Your task to perform on an android device: Go to calendar. Show me events next week Image 0: 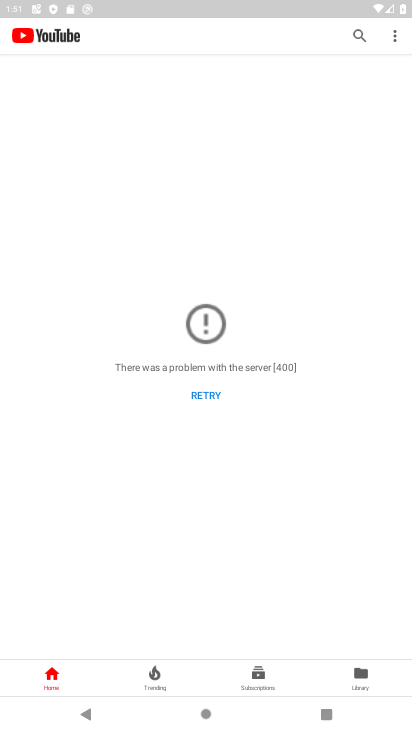
Step 0: press home button
Your task to perform on an android device: Go to calendar. Show me events next week Image 1: 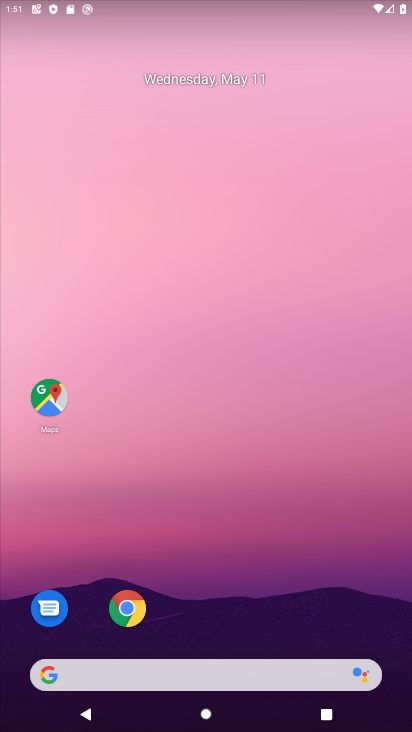
Step 1: drag from (281, 577) to (332, 246)
Your task to perform on an android device: Go to calendar. Show me events next week Image 2: 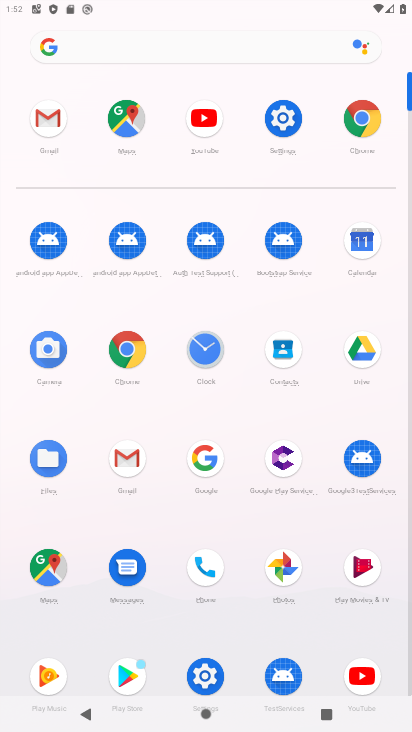
Step 2: click (365, 239)
Your task to perform on an android device: Go to calendar. Show me events next week Image 3: 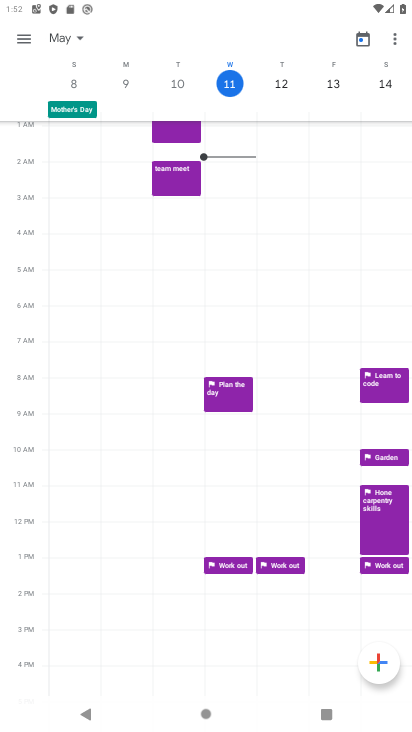
Step 3: click (28, 44)
Your task to perform on an android device: Go to calendar. Show me events next week Image 4: 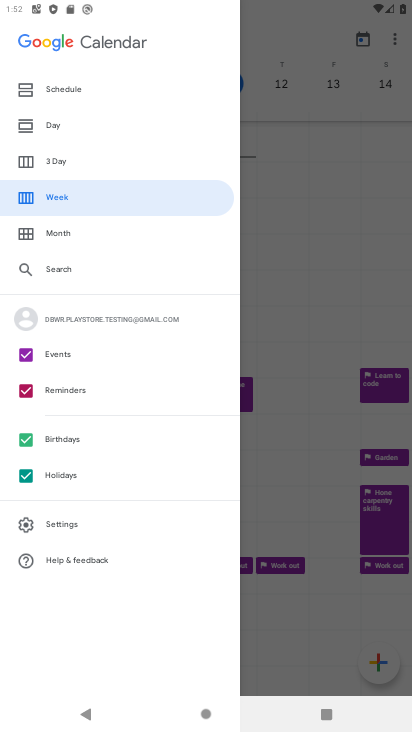
Step 4: click (181, 199)
Your task to perform on an android device: Go to calendar. Show me events next week Image 5: 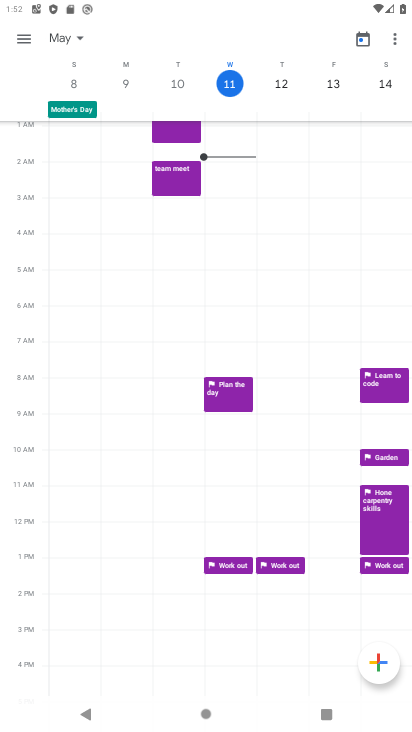
Step 5: click (349, 190)
Your task to perform on an android device: Go to calendar. Show me events next week Image 6: 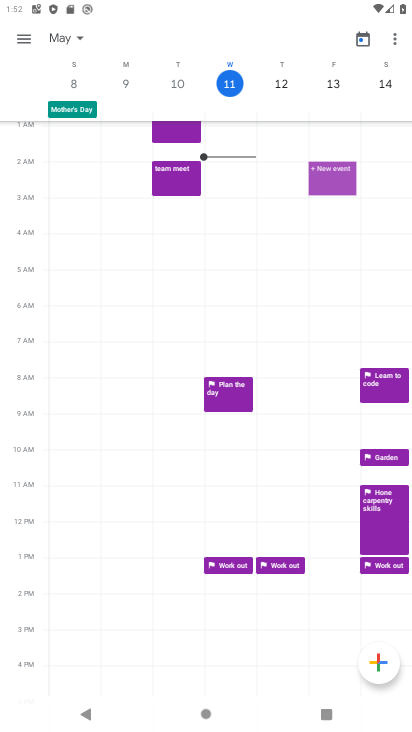
Step 6: drag from (347, 319) to (399, 89)
Your task to perform on an android device: Go to calendar. Show me events next week Image 7: 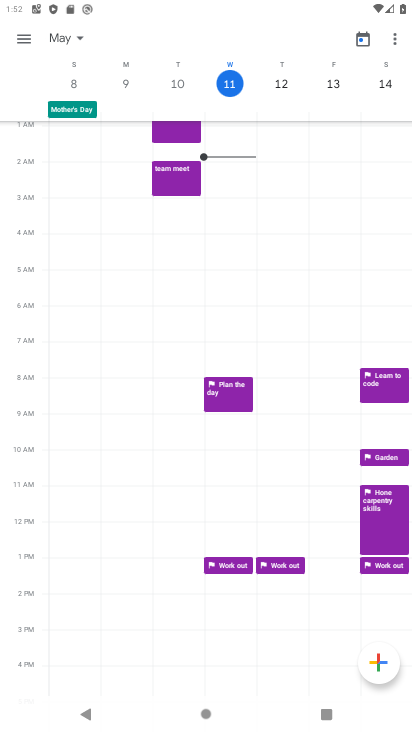
Step 7: drag from (375, 348) to (165, 329)
Your task to perform on an android device: Go to calendar. Show me events next week Image 8: 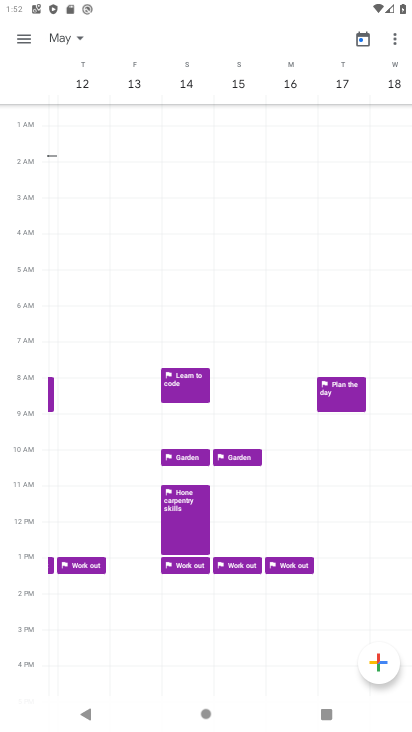
Step 8: click (164, 329)
Your task to perform on an android device: Go to calendar. Show me events next week Image 9: 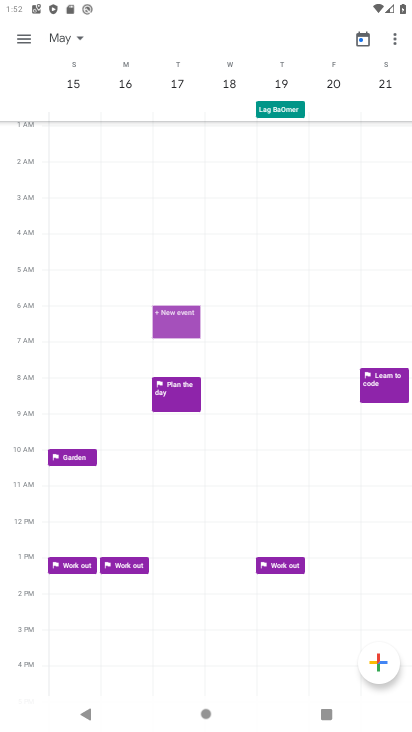
Step 9: task complete